Your task to perform on an android device: empty trash in the gmail app Image 0: 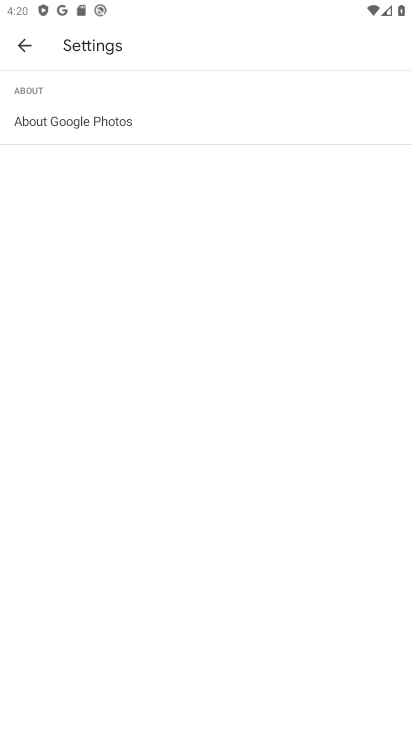
Step 0: press home button
Your task to perform on an android device: empty trash in the gmail app Image 1: 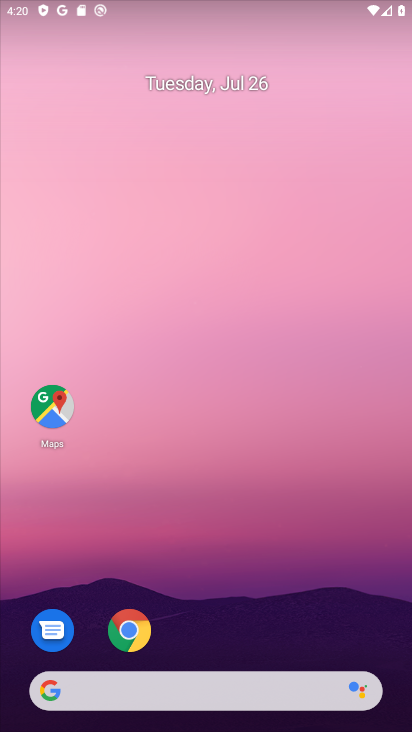
Step 1: drag from (319, 591) to (240, 24)
Your task to perform on an android device: empty trash in the gmail app Image 2: 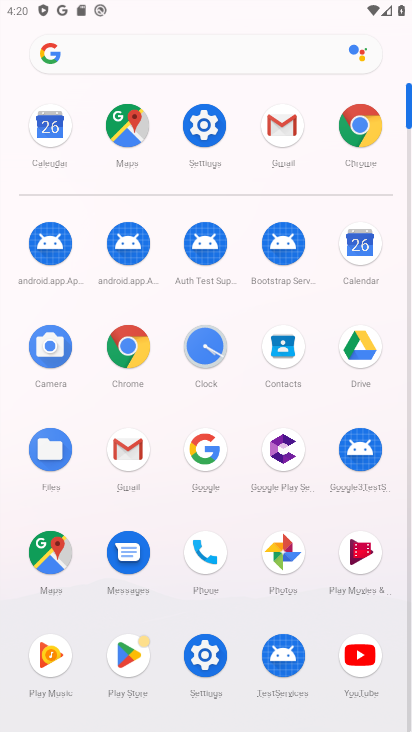
Step 2: click (267, 126)
Your task to perform on an android device: empty trash in the gmail app Image 3: 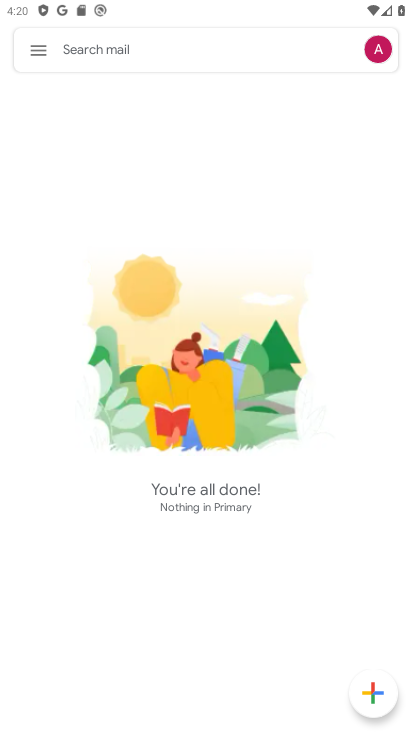
Step 3: click (50, 56)
Your task to perform on an android device: empty trash in the gmail app Image 4: 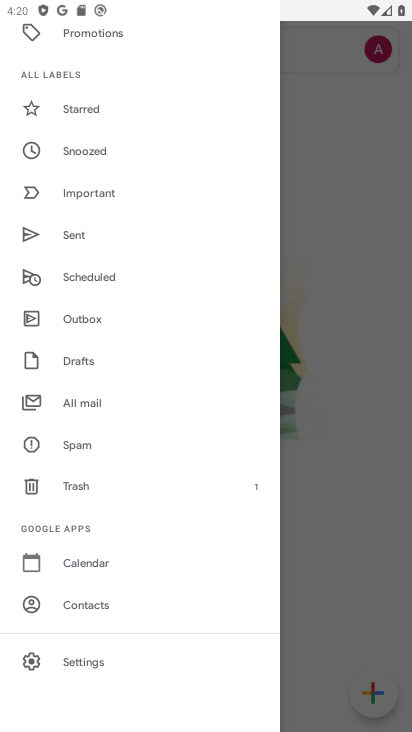
Step 4: click (92, 486)
Your task to perform on an android device: empty trash in the gmail app Image 5: 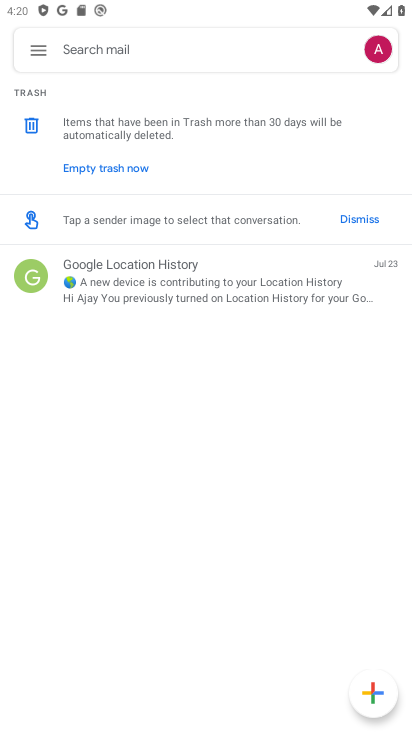
Step 5: click (125, 172)
Your task to perform on an android device: empty trash in the gmail app Image 6: 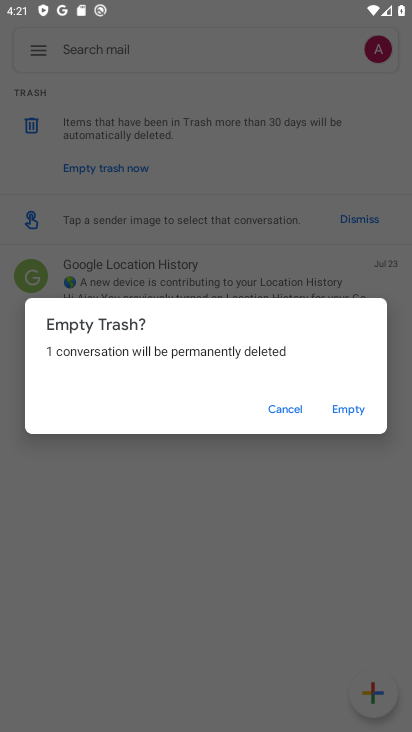
Step 6: click (350, 408)
Your task to perform on an android device: empty trash in the gmail app Image 7: 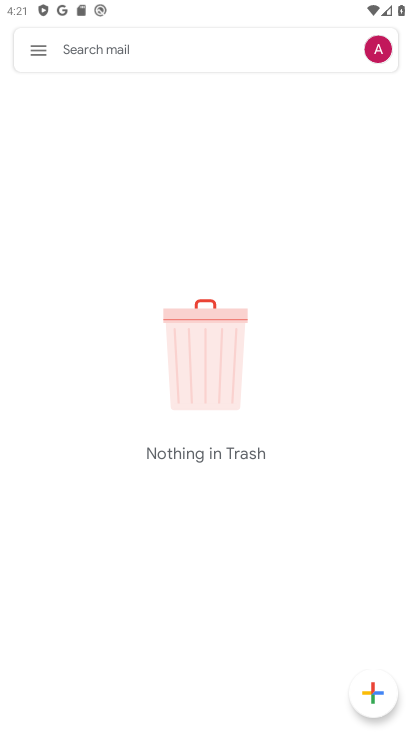
Step 7: task complete